Your task to perform on an android device: Go to Yahoo.com Image 0: 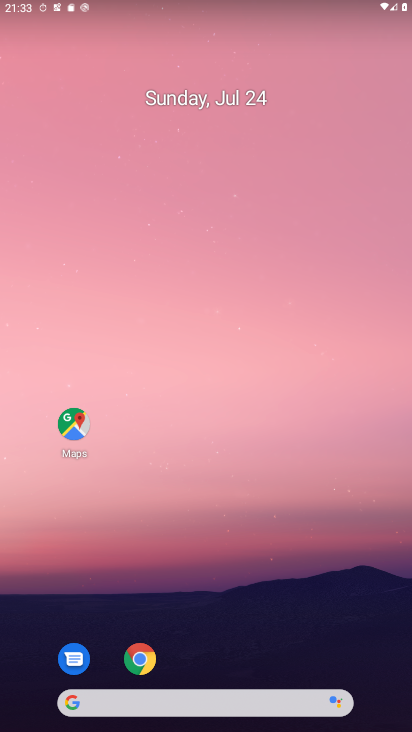
Step 0: click (142, 662)
Your task to perform on an android device: Go to Yahoo.com Image 1: 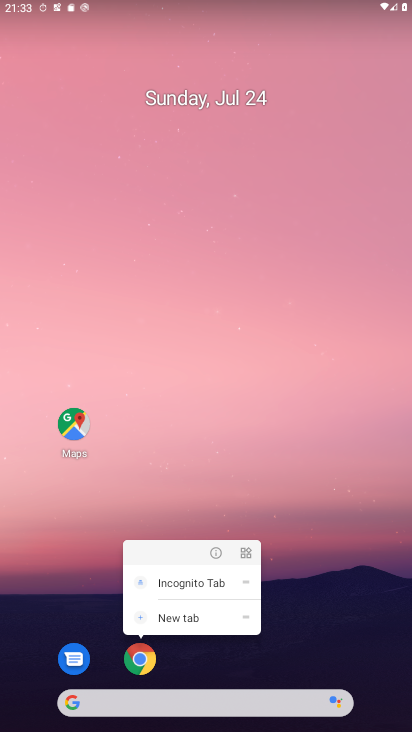
Step 1: click (142, 662)
Your task to perform on an android device: Go to Yahoo.com Image 2: 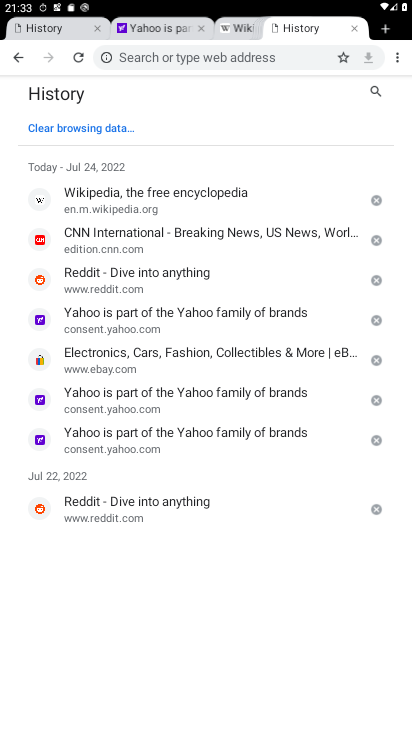
Step 2: click (396, 57)
Your task to perform on an android device: Go to Yahoo.com Image 3: 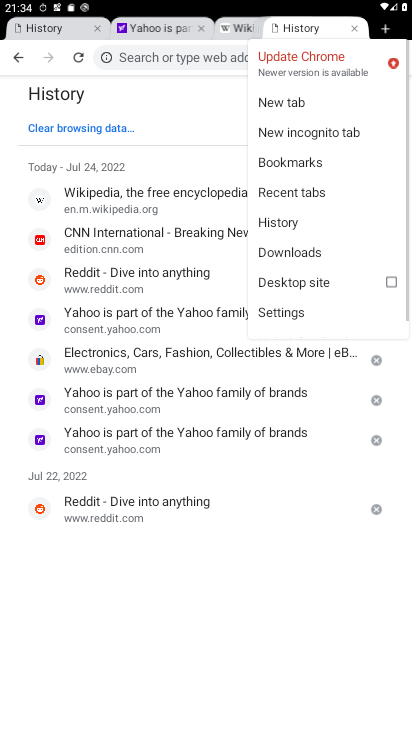
Step 3: click (275, 101)
Your task to perform on an android device: Go to Yahoo.com Image 4: 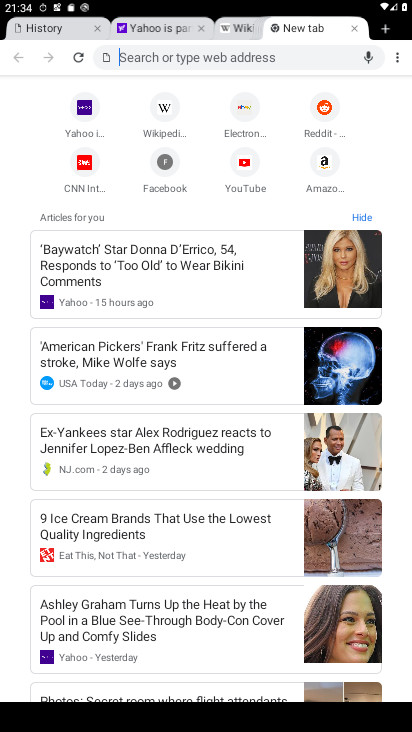
Step 4: click (87, 106)
Your task to perform on an android device: Go to Yahoo.com Image 5: 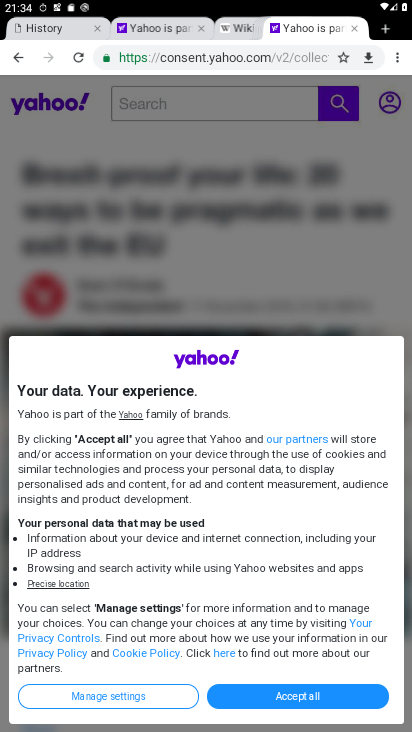
Step 5: task complete